Your task to perform on an android device: Open sound settings Image 0: 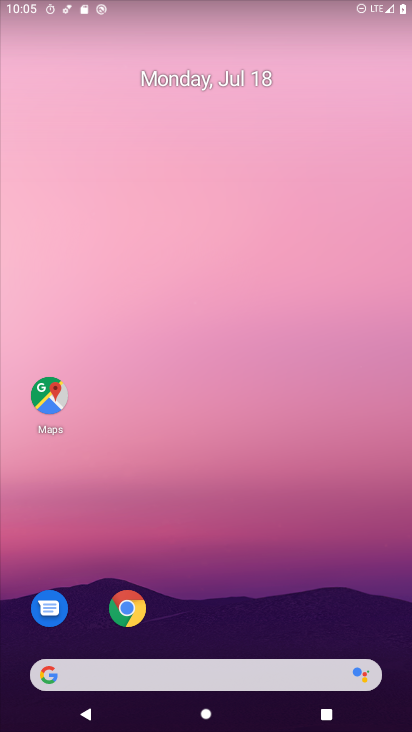
Step 0: drag from (174, 583) to (264, 90)
Your task to perform on an android device: Open sound settings Image 1: 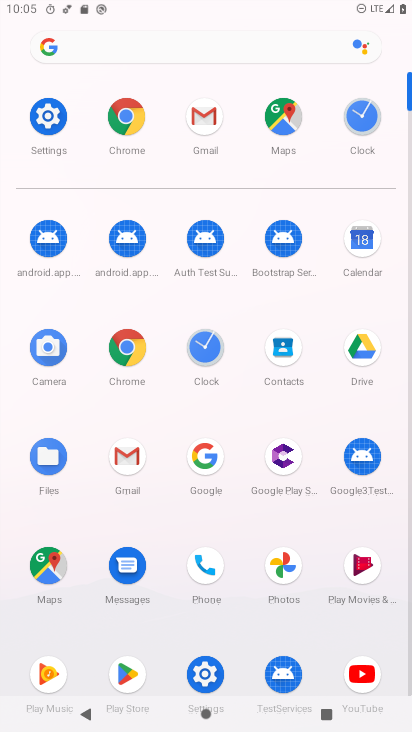
Step 1: click (37, 117)
Your task to perform on an android device: Open sound settings Image 2: 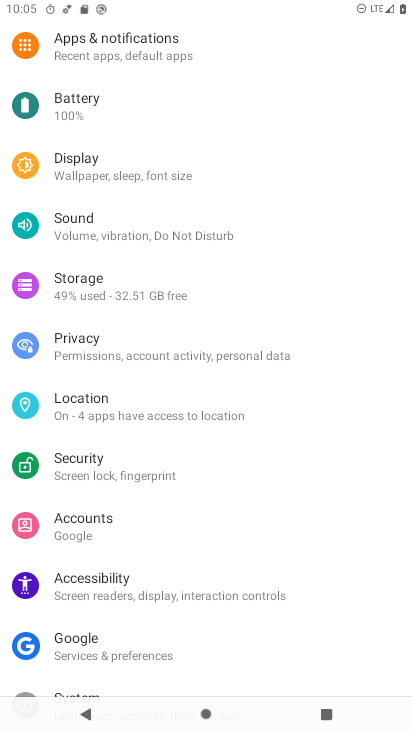
Step 2: click (121, 239)
Your task to perform on an android device: Open sound settings Image 3: 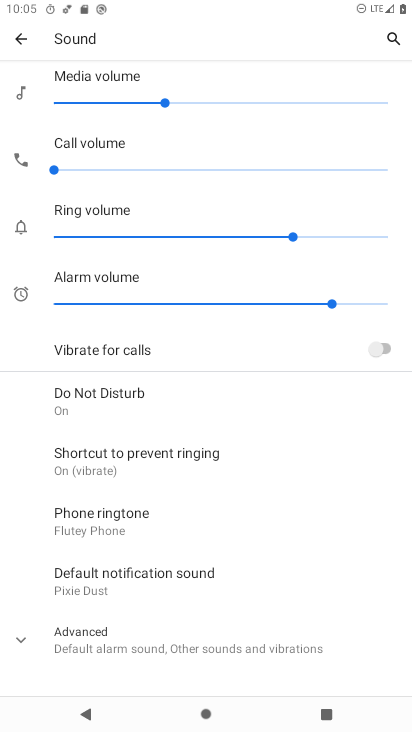
Step 3: task complete